Your task to perform on an android device: delete browsing data in the chrome app Image 0: 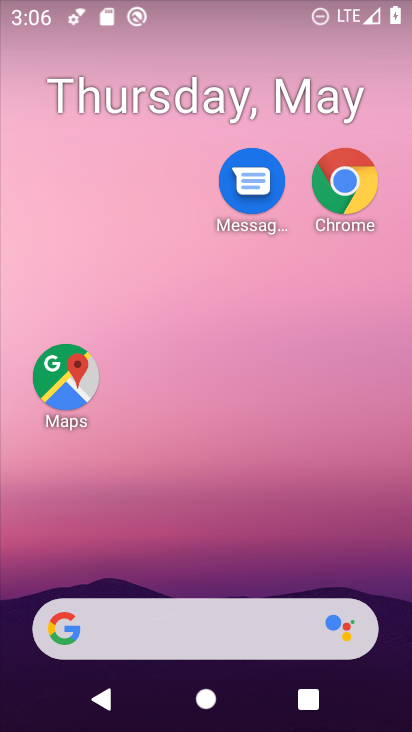
Step 0: drag from (268, 489) to (317, 10)
Your task to perform on an android device: delete browsing data in the chrome app Image 1: 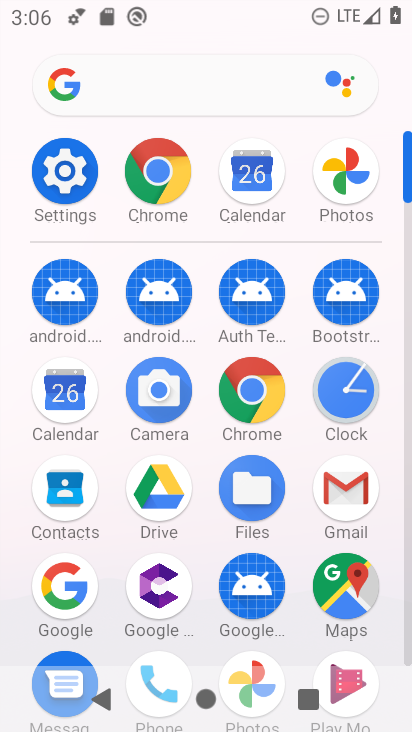
Step 1: click (224, 391)
Your task to perform on an android device: delete browsing data in the chrome app Image 2: 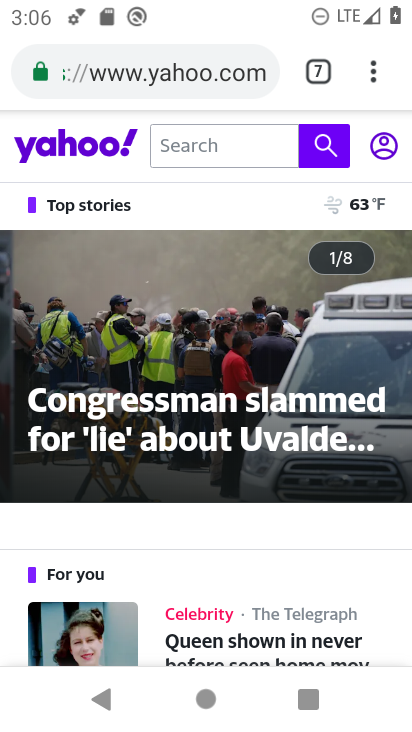
Step 2: drag from (379, 74) to (140, 513)
Your task to perform on an android device: delete browsing data in the chrome app Image 3: 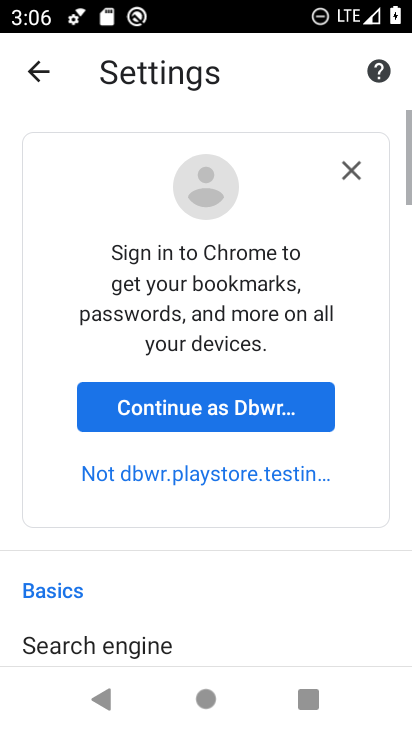
Step 3: drag from (167, 618) to (338, 10)
Your task to perform on an android device: delete browsing data in the chrome app Image 4: 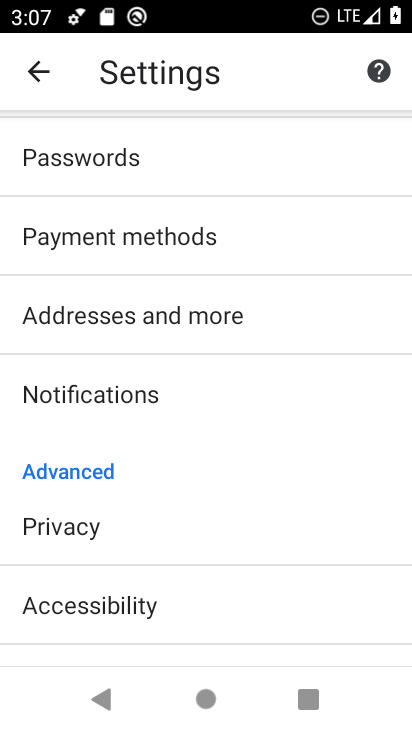
Step 4: drag from (196, 599) to (242, 194)
Your task to perform on an android device: delete browsing data in the chrome app Image 5: 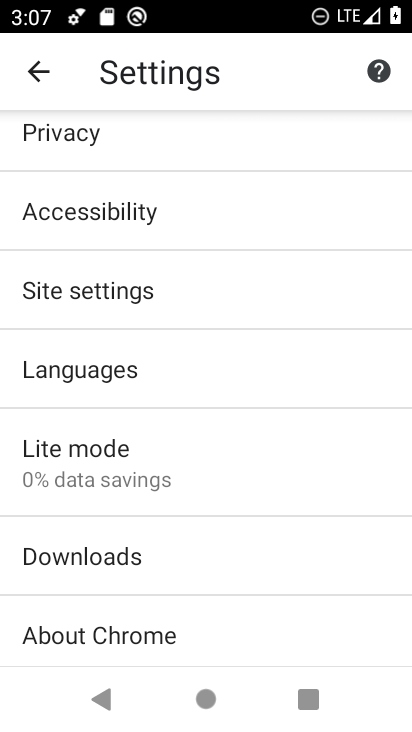
Step 5: click (111, 138)
Your task to perform on an android device: delete browsing data in the chrome app Image 6: 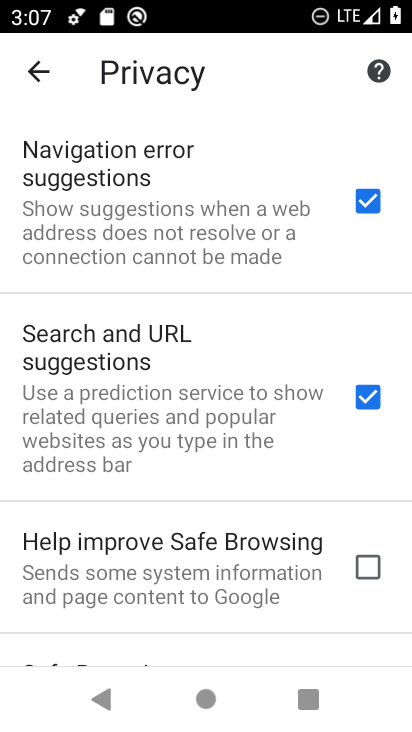
Step 6: drag from (198, 626) to (207, 12)
Your task to perform on an android device: delete browsing data in the chrome app Image 7: 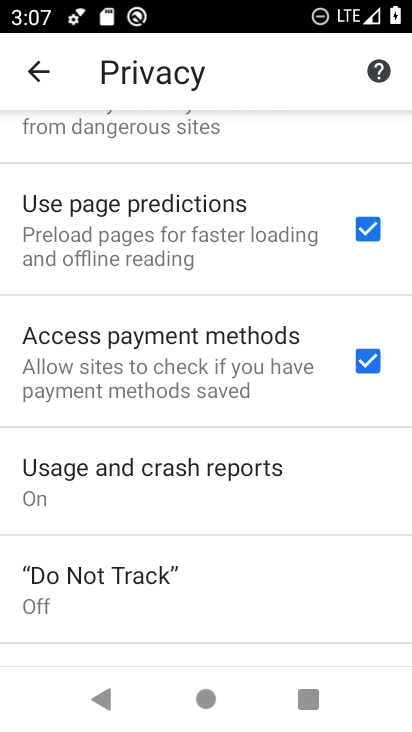
Step 7: drag from (250, 626) to (304, 15)
Your task to perform on an android device: delete browsing data in the chrome app Image 8: 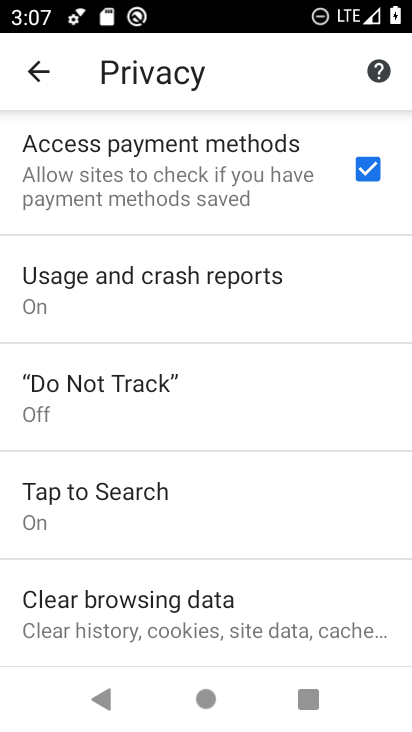
Step 8: click (241, 609)
Your task to perform on an android device: delete browsing data in the chrome app Image 9: 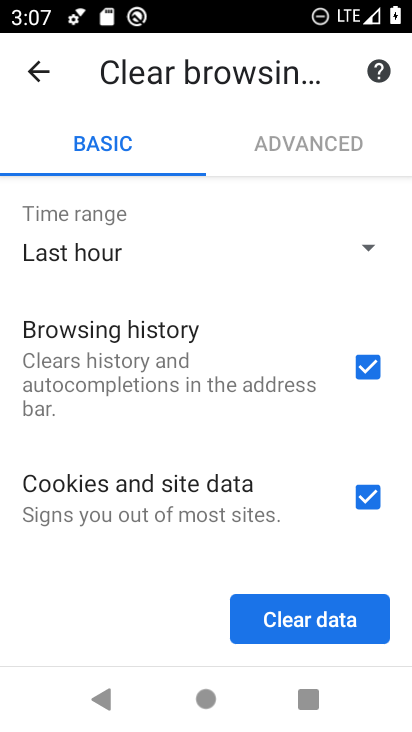
Step 9: click (360, 616)
Your task to perform on an android device: delete browsing data in the chrome app Image 10: 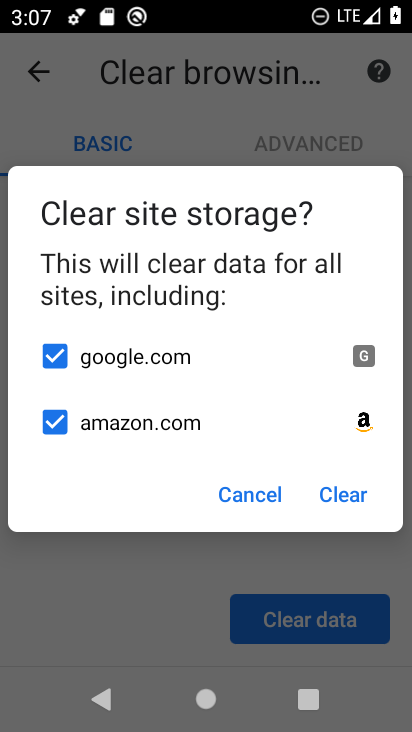
Step 10: click (349, 500)
Your task to perform on an android device: delete browsing data in the chrome app Image 11: 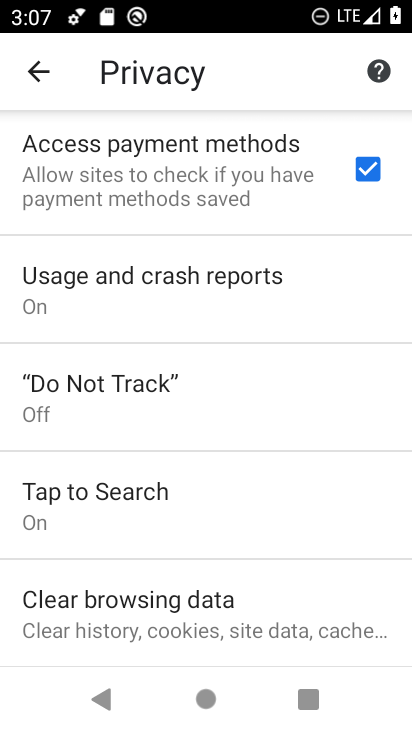
Step 11: task complete